Your task to perform on an android device: Go to Wikipedia Image 0: 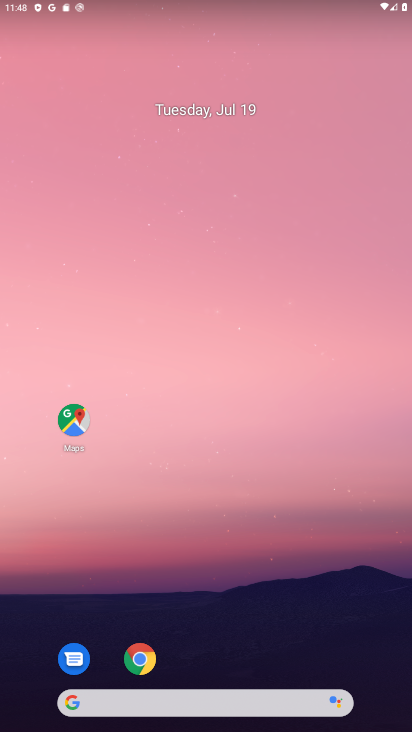
Step 0: drag from (308, 613) to (343, 164)
Your task to perform on an android device: Go to Wikipedia Image 1: 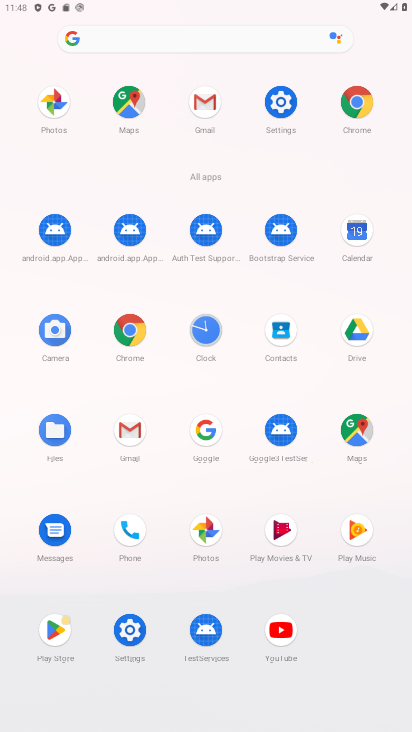
Step 1: click (363, 105)
Your task to perform on an android device: Go to Wikipedia Image 2: 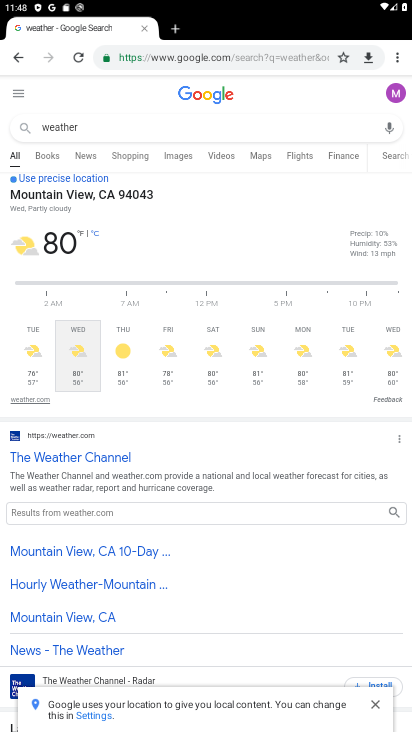
Step 2: click (196, 60)
Your task to perform on an android device: Go to Wikipedia Image 3: 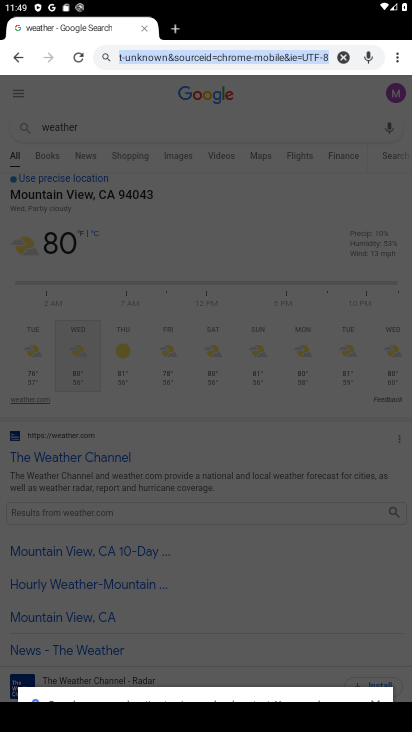
Step 3: type "wikipedia"
Your task to perform on an android device: Go to Wikipedia Image 4: 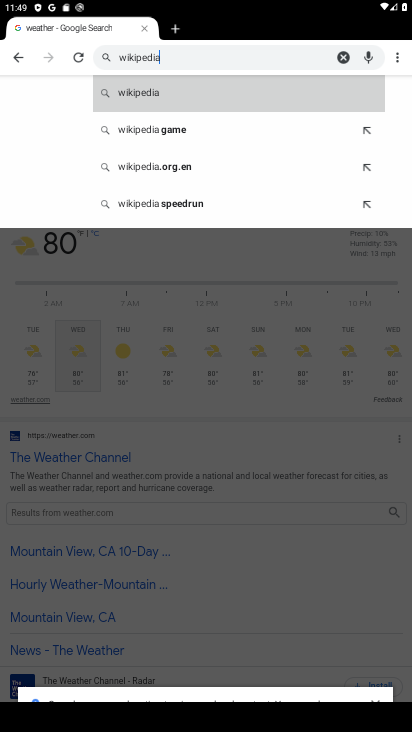
Step 4: click (132, 96)
Your task to perform on an android device: Go to Wikipedia Image 5: 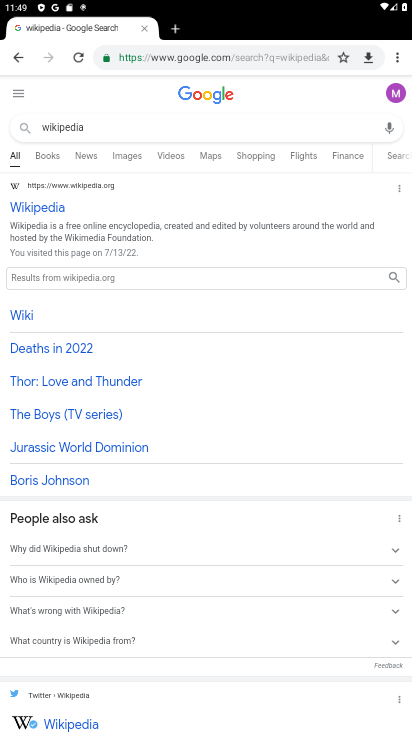
Step 5: click (43, 206)
Your task to perform on an android device: Go to Wikipedia Image 6: 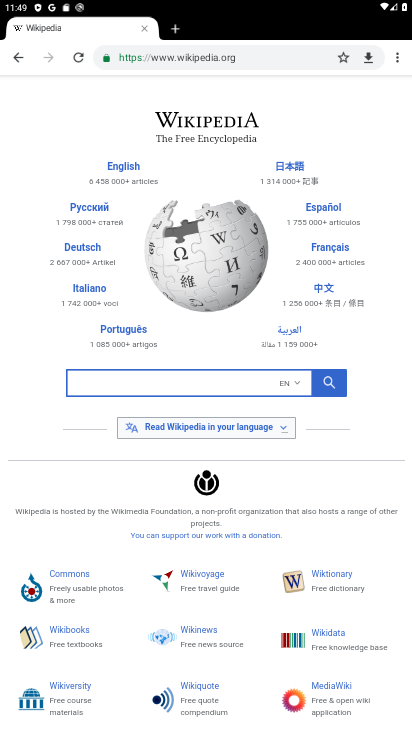
Step 6: task complete